Your task to perform on an android device: Open wifi settings Image 0: 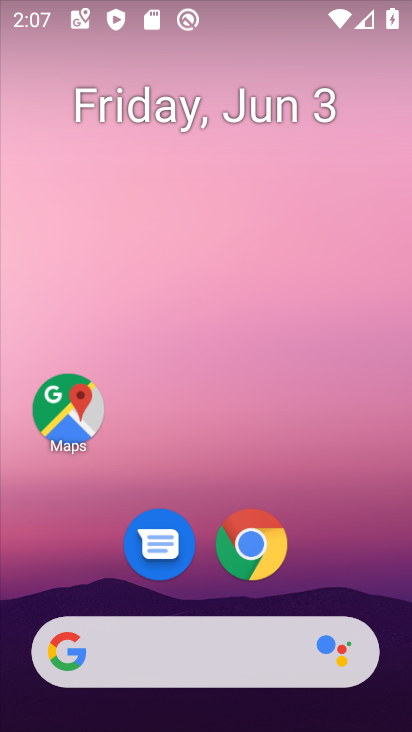
Step 0: drag from (314, 548) to (319, 166)
Your task to perform on an android device: Open wifi settings Image 1: 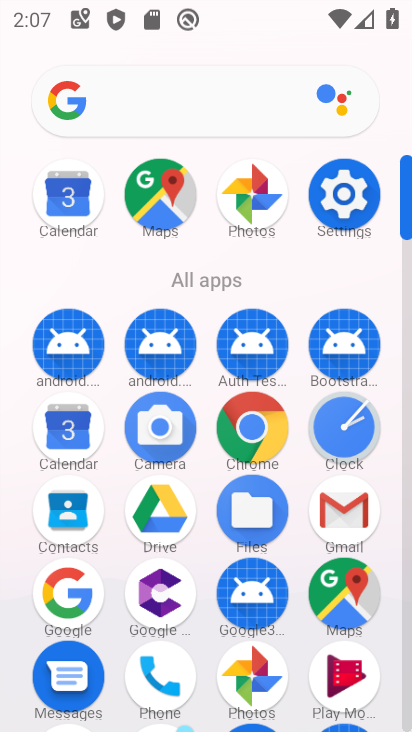
Step 1: click (363, 190)
Your task to perform on an android device: Open wifi settings Image 2: 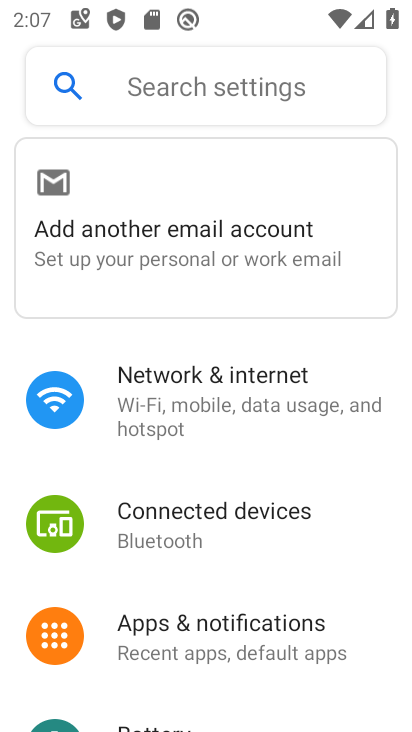
Step 2: click (212, 372)
Your task to perform on an android device: Open wifi settings Image 3: 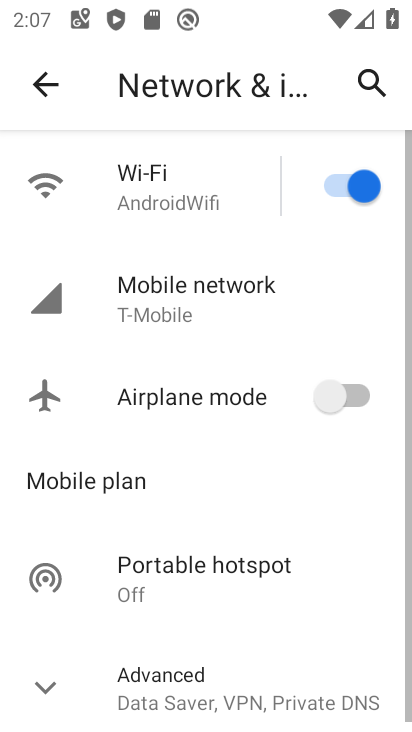
Step 3: click (172, 211)
Your task to perform on an android device: Open wifi settings Image 4: 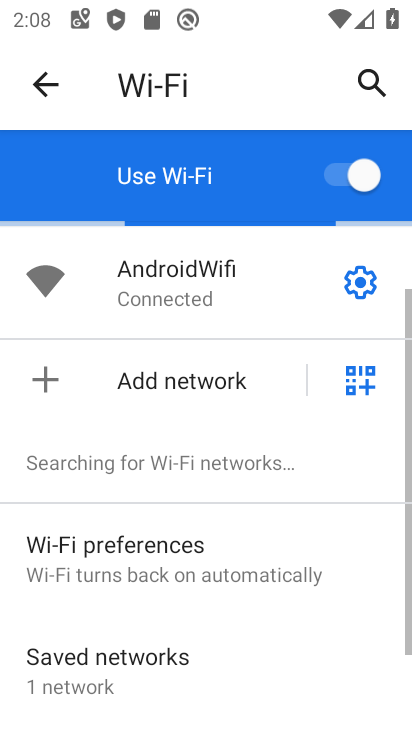
Step 4: task complete